Your task to perform on an android device: open app "Reddit" Image 0: 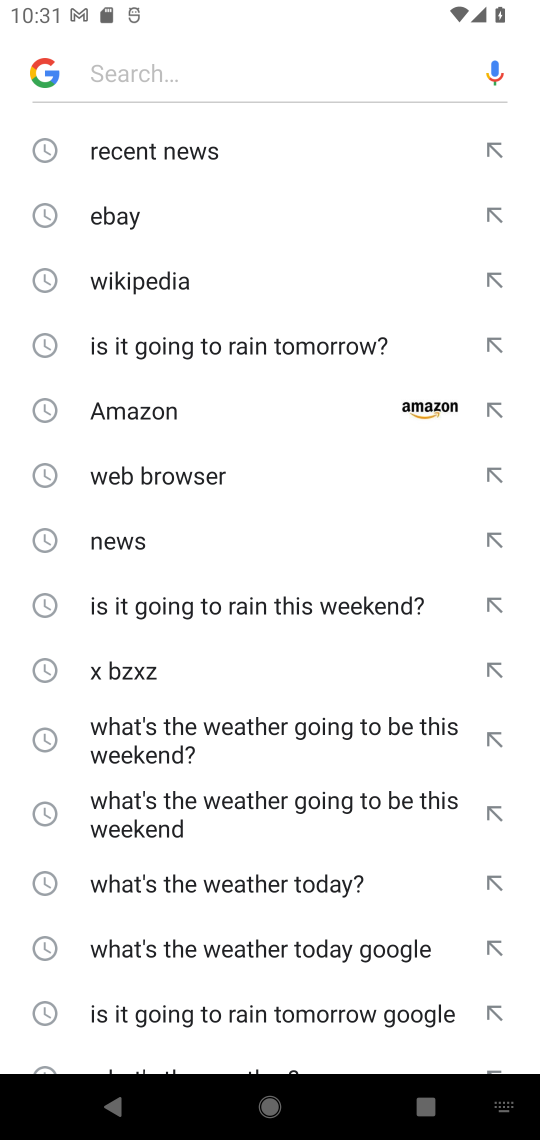
Step 0: press home button
Your task to perform on an android device: open app "Reddit" Image 1: 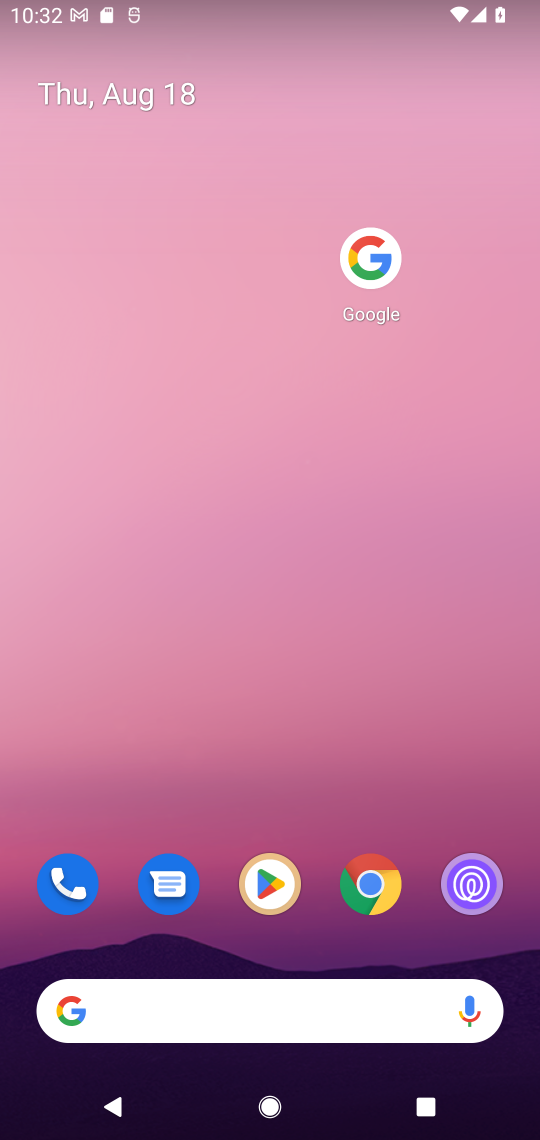
Step 1: click (278, 889)
Your task to perform on an android device: open app "Reddit" Image 2: 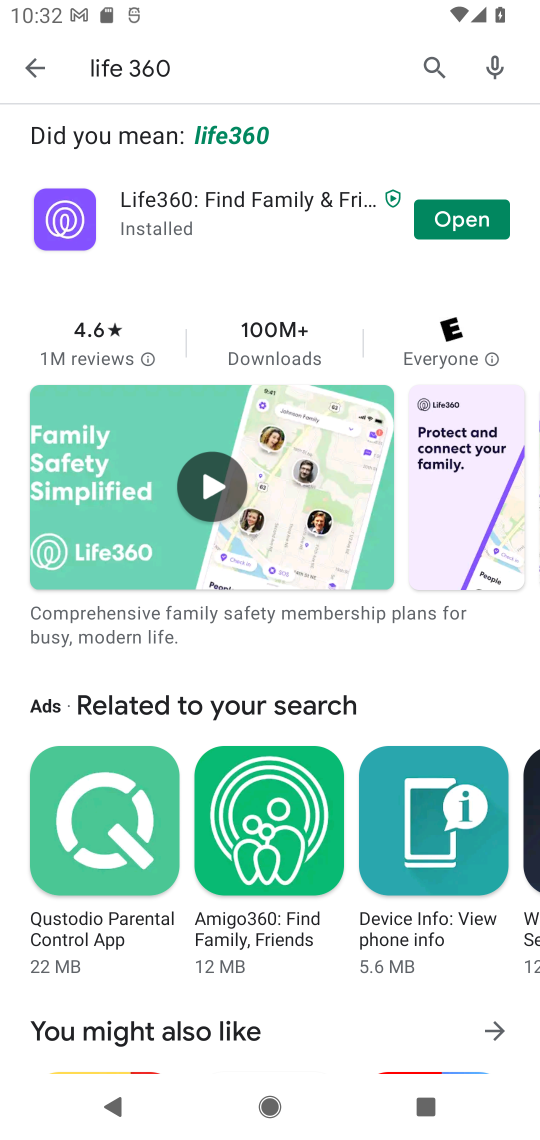
Step 2: task complete